Your task to perform on an android device: turn on the 24-hour format for clock Image 0: 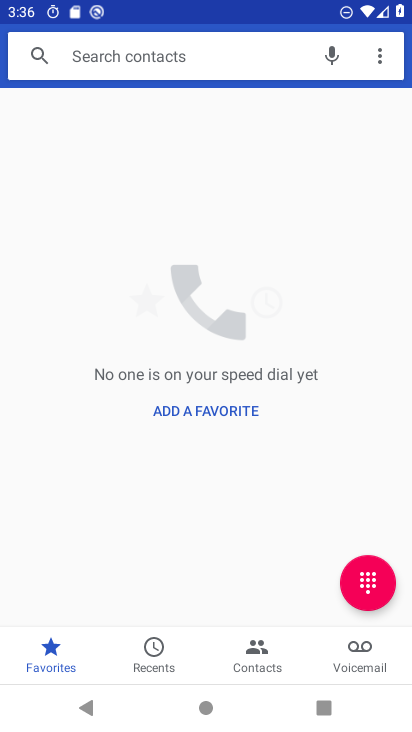
Step 0: press home button
Your task to perform on an android device: turn on the 24-hour format for clock Image 1: 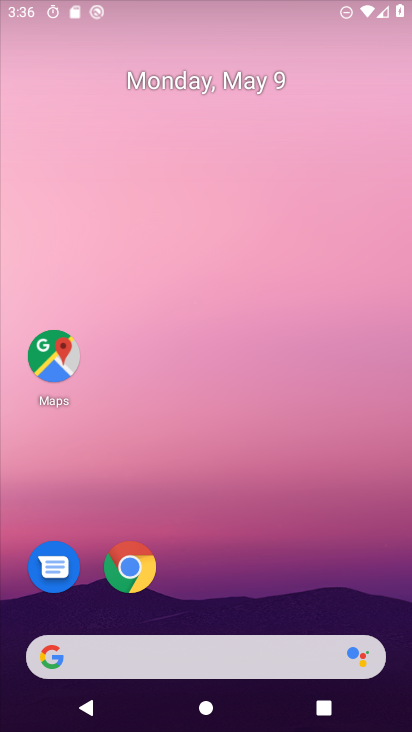
Step 1: drag from (220, 543) to (259, 52)
Your task to perform on an android device: turn on the 24-hour format for clock Image 2: 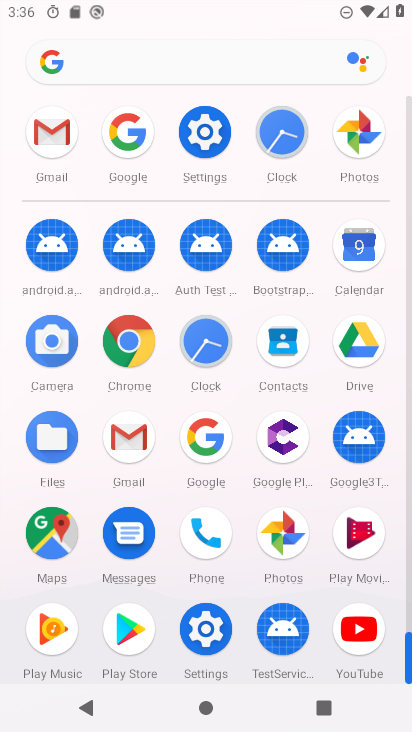
Step 2: click (209, 358)
Your task to perform on an android device: turn on the 24-hour format for clock Image 3: 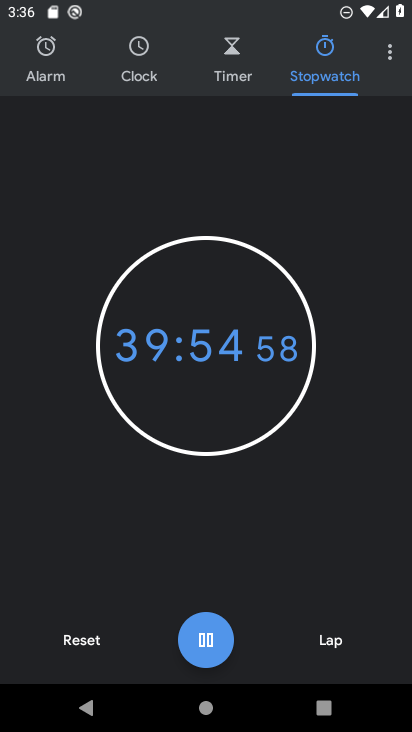
Step 3: click (397, 56)
Your task to perform on an android device: turn on the 24-hour format for clock Image 4: 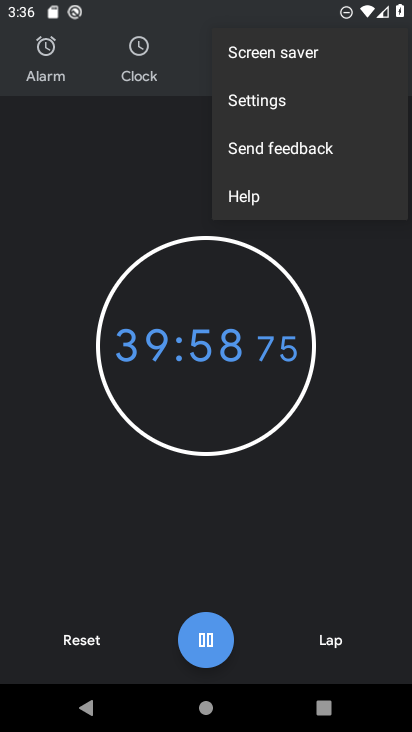
Step 4: click (274, 100)
Your task to perform on an android device: turn on the 24-hour format for clock Image 5: 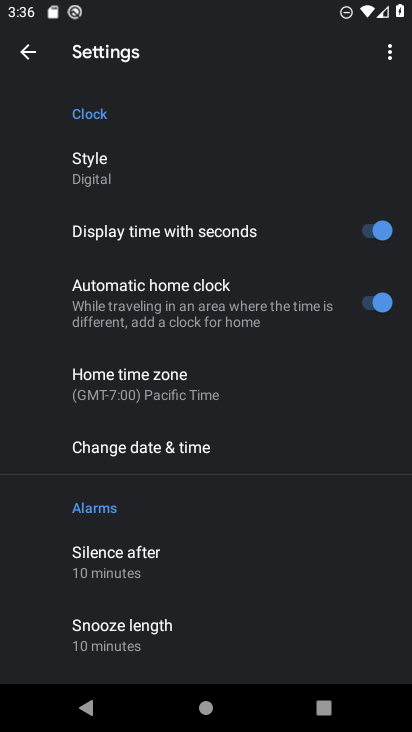
Step 5: drag from (242, 634) to (242, 266)
Your task to perform on an android device: turn on the 24-hour format for clock Image 6: 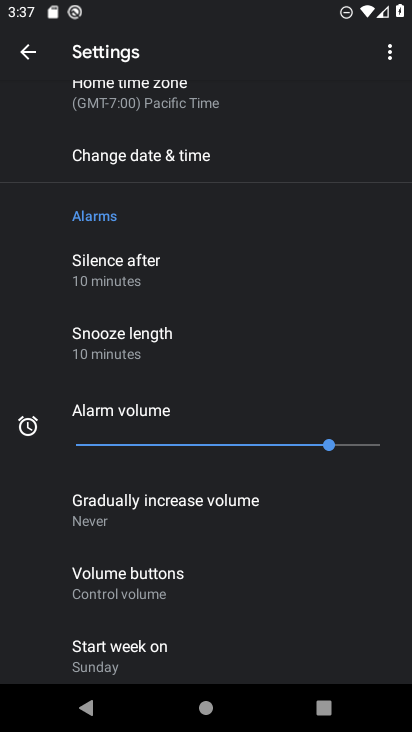
Step 6: click (191, 147)
Your task to perform on an android device: turn on the 24-hour format for clock Image 7: 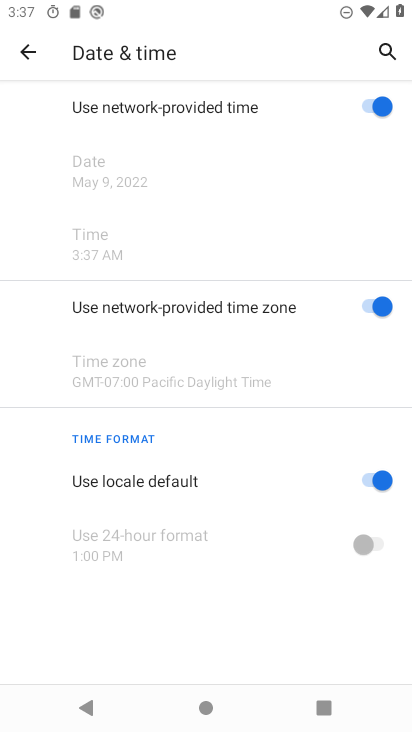
Step 7: click (363, 478)
Your task to perform on an android device: turn on the 24-hour format for clock Image 8: 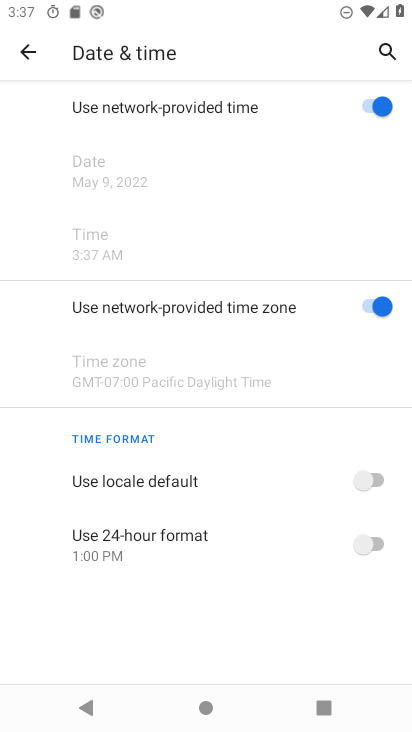
Step 8: click (380, 542)
Your task to perform on an android device: turn on the 24-hour format for clock Image 9: 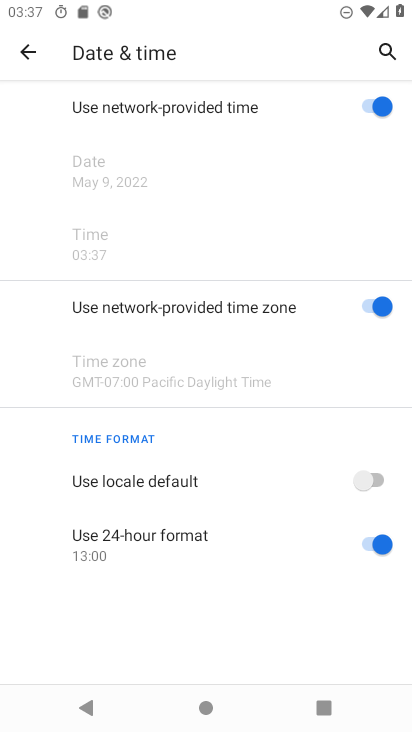
Step 9: task complete